Your task to perform on an android device: open app "Walmart Shopping & Grocery" Image 0: 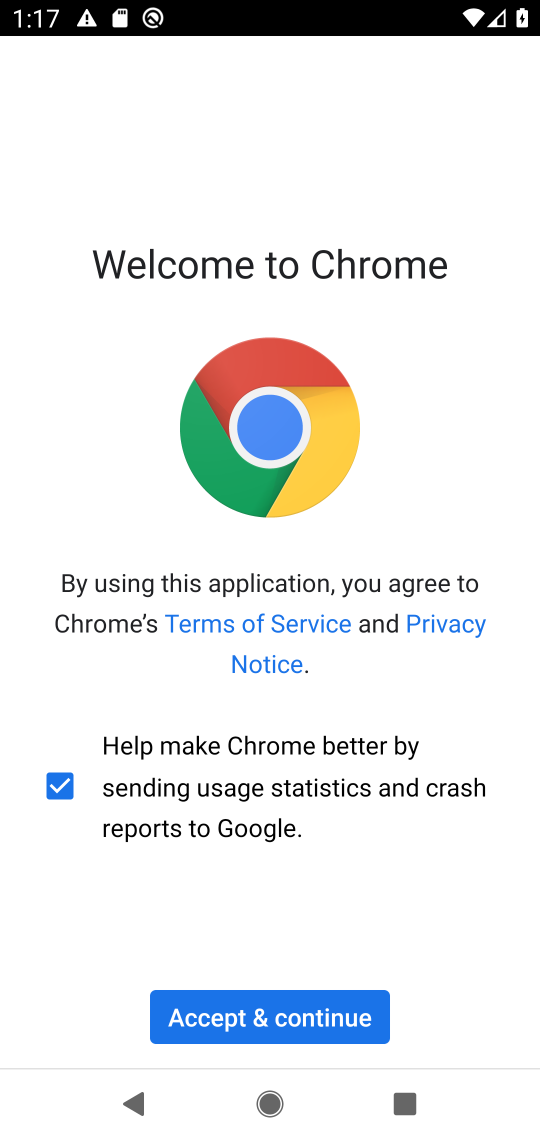
Step 0: press back button
Your task to perform on an android device: open app "Walmart Shopping & Grocery" Image 1: 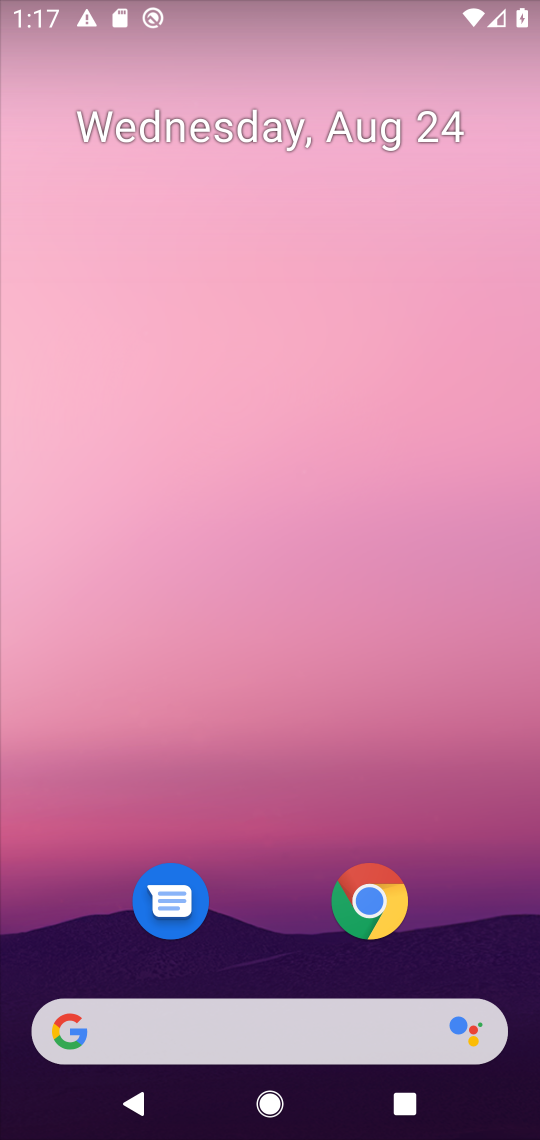
Step 1: drag from (275, 753) to (347, 168)
Your task to perform on an android device: open app "Walmart Shopping & Grocery" Image 2: 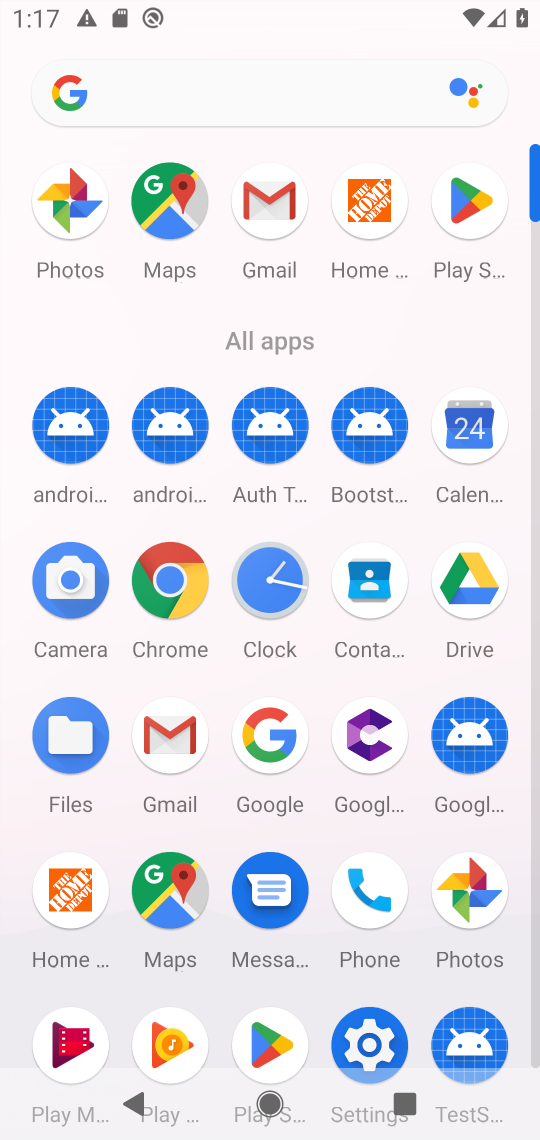
Step 2: click (453, 207)
Your task to perform on an android device: open app "Walmart Shopping & Grocery" Image 3: 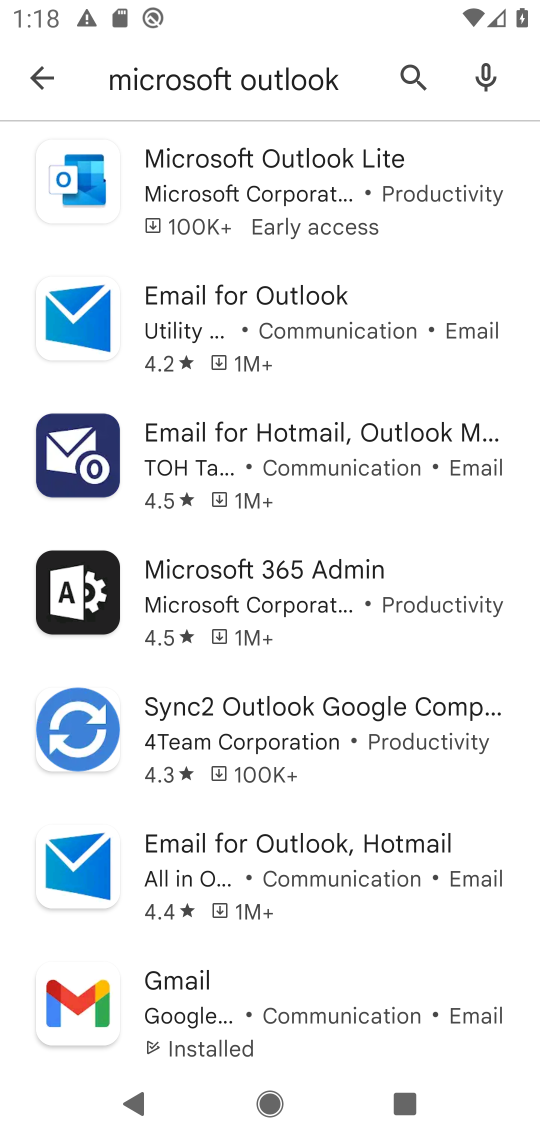
Step 3: click (394, 68)
Your task to perform on an android device: open app "Walmart Shopping & Grocery" Image 4: 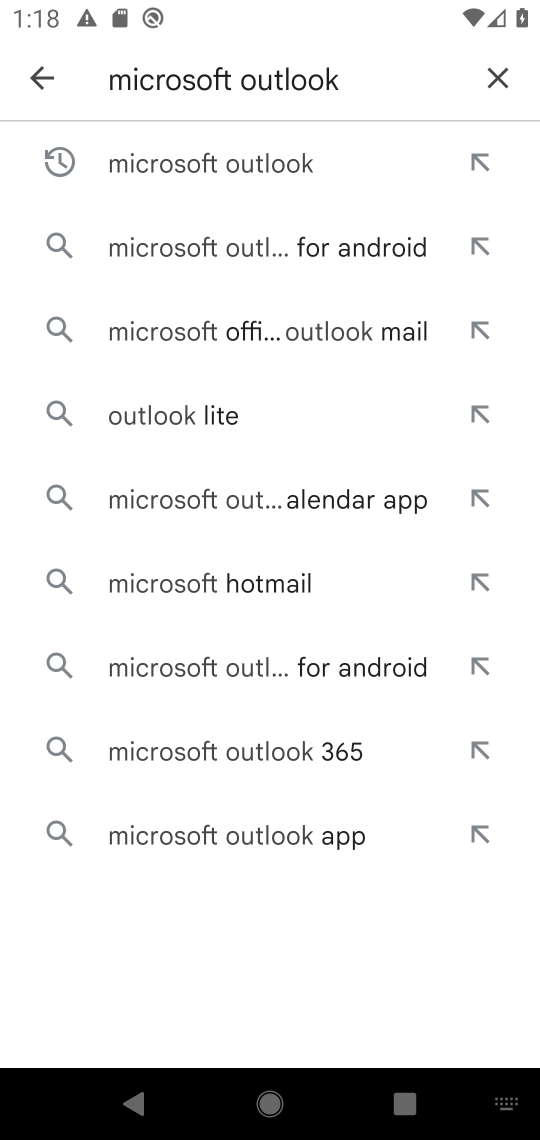
Step 4: click (497, 70)
Your task to perform on an android device: open app "Walmart Shopping & Grocery" Image 5: 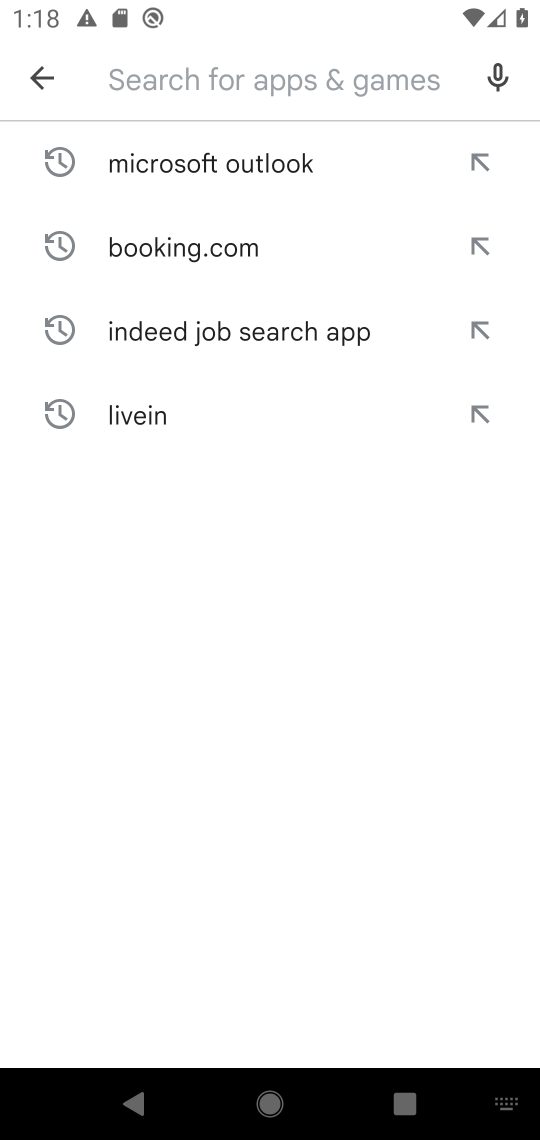
Step 5: click (207, 74)
Your task to perform on an android device: open app "Walmart Shopping & Grocery" Image 6: 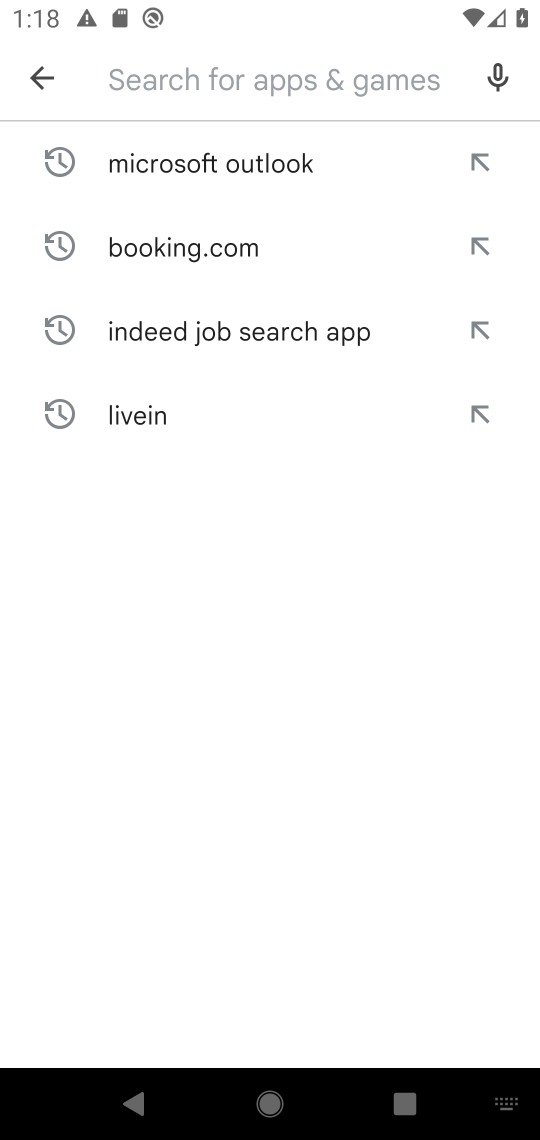
Step 6: type "Walmart Shopping & Grocery"
Your task to perform on an android device: open app "Walmart Shopping & Grocery" Image 7: 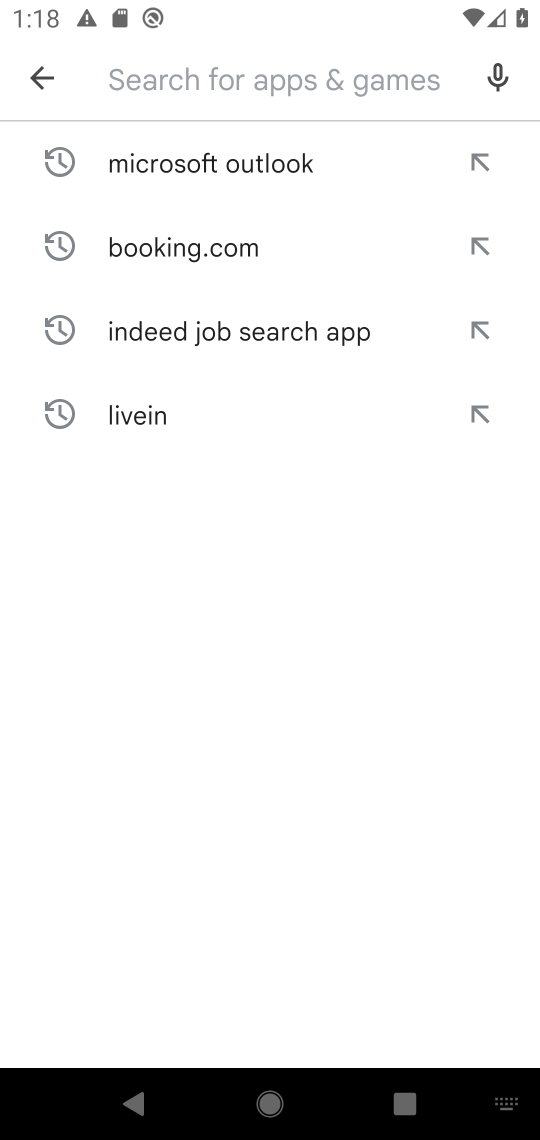
Step 7: click (119, 721)
Your task to perform on an android device: open app "Walmart Shopping & Grocery" Image 8: 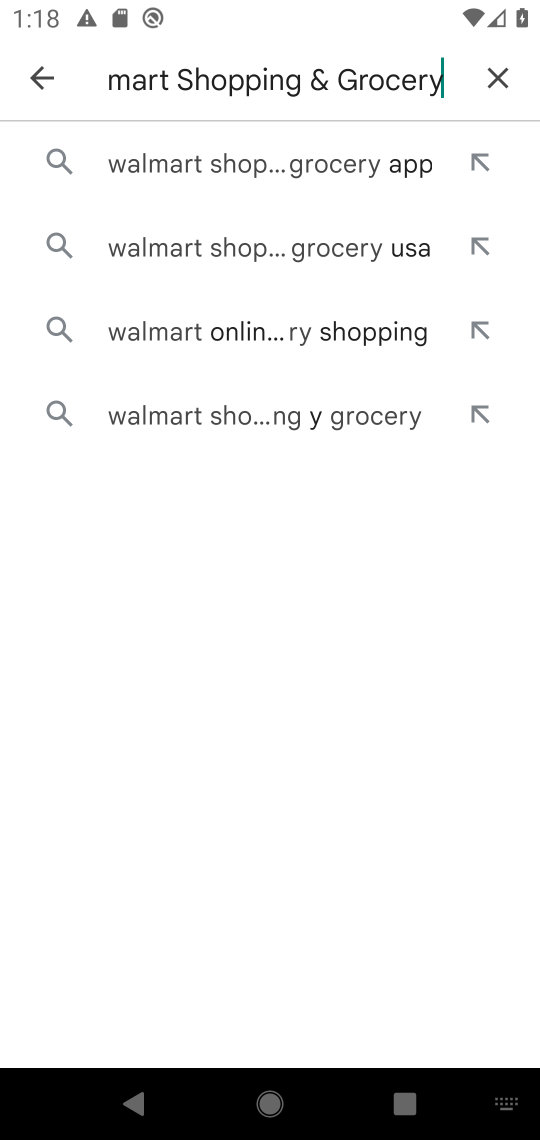
Step 8: click (272, 148)
Your task to perform on an android device: open app "Walmart Shopping & Grocery" Image 9: 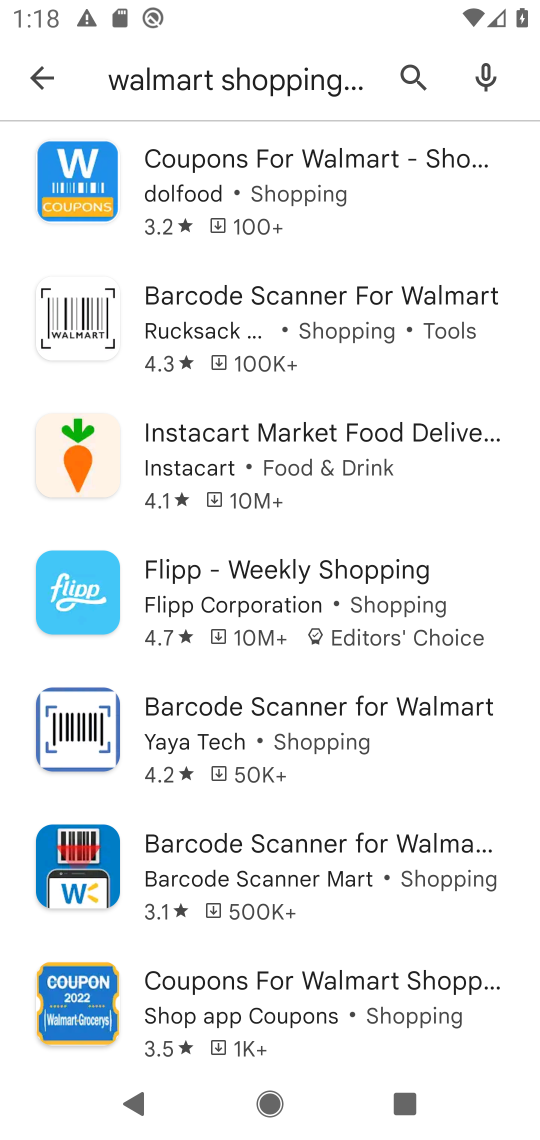
Step 9: task complete